Your task to perform on an android device: Go to Android settings Image 0: 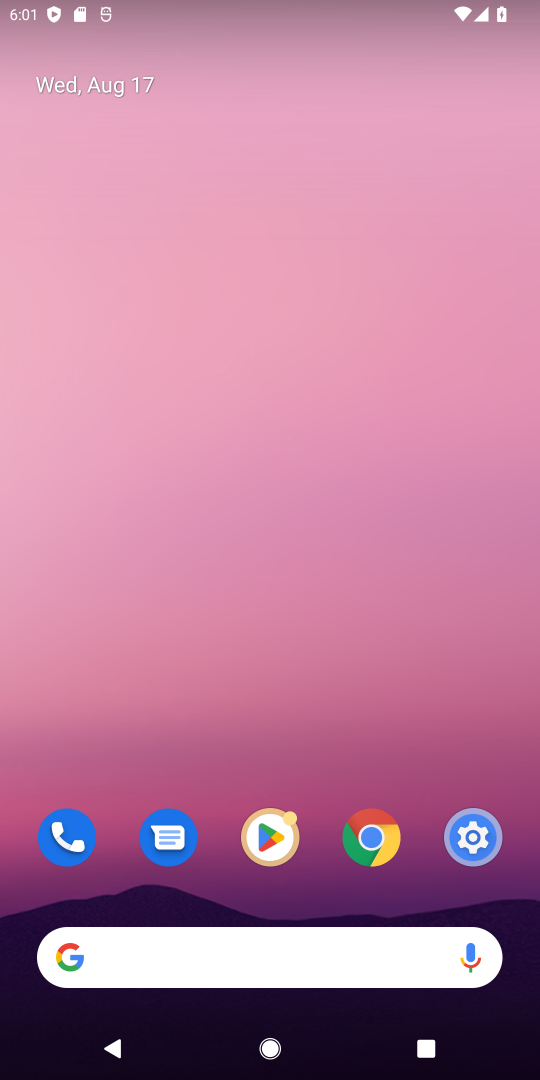
Step 0: click (465, 840)
Your task to perform on an android device: Go to Android settings Image 1: 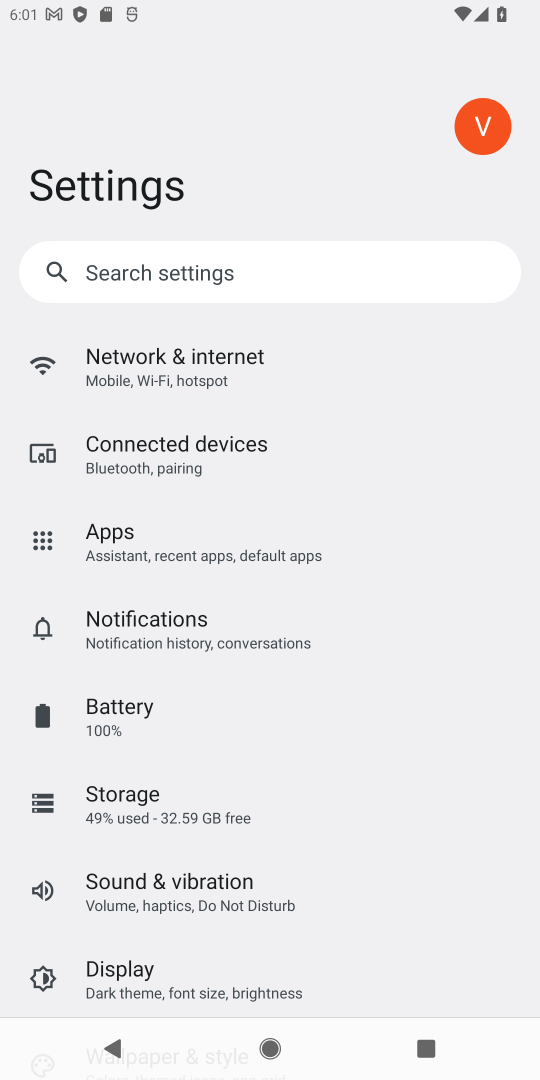
Step 1: drag from (111, 999) to (232, 58)
Your task to perform on an android device: Go to Android settings Image 2: 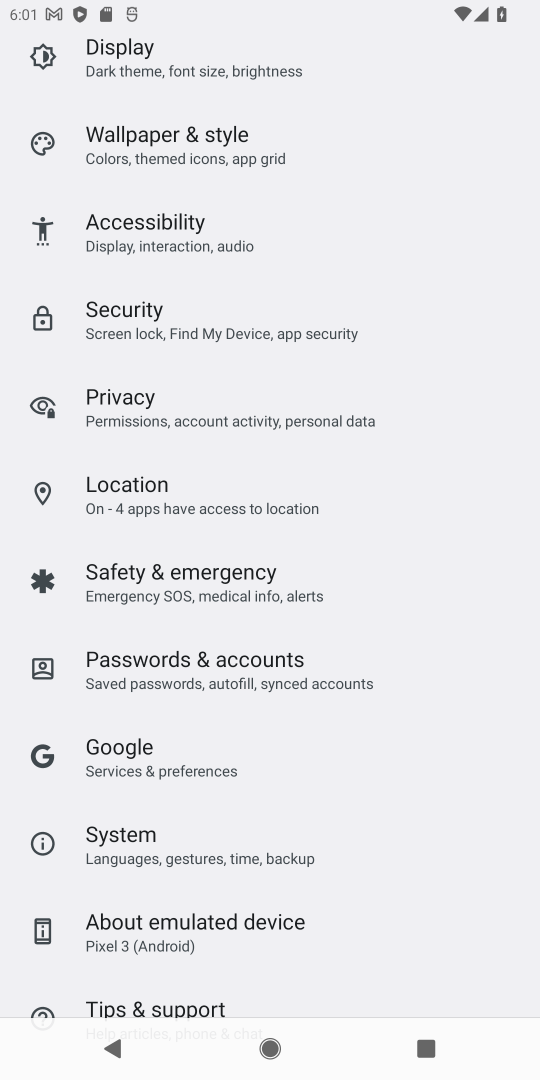
Step 2: drag from (171, 957) to (317, 55)
Your task to perform on an android device: Go to Android settings Image 3: 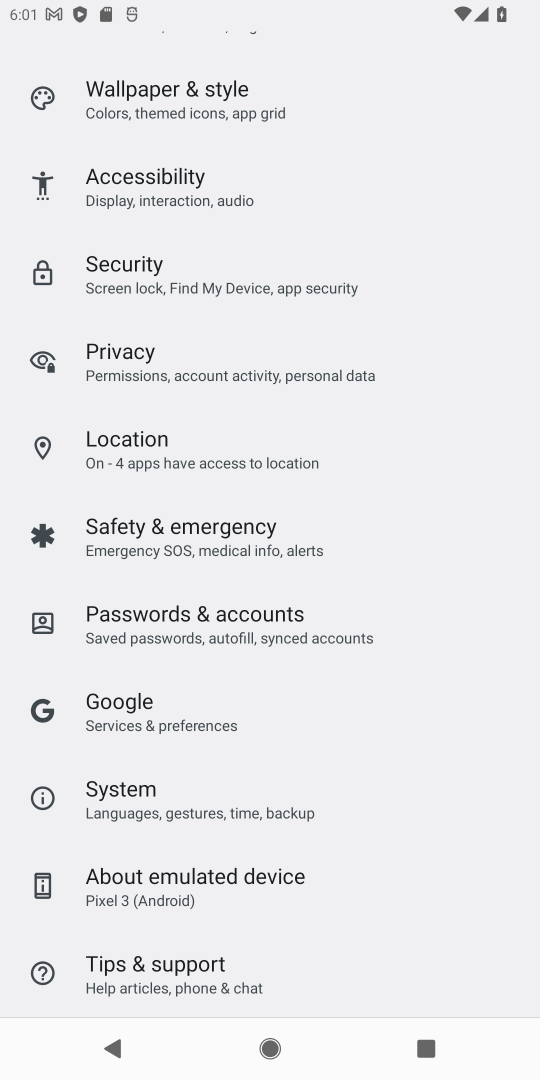
Step 3: click (189, 884)
Your task to perform on an android device: Go to Android settings Image 4: 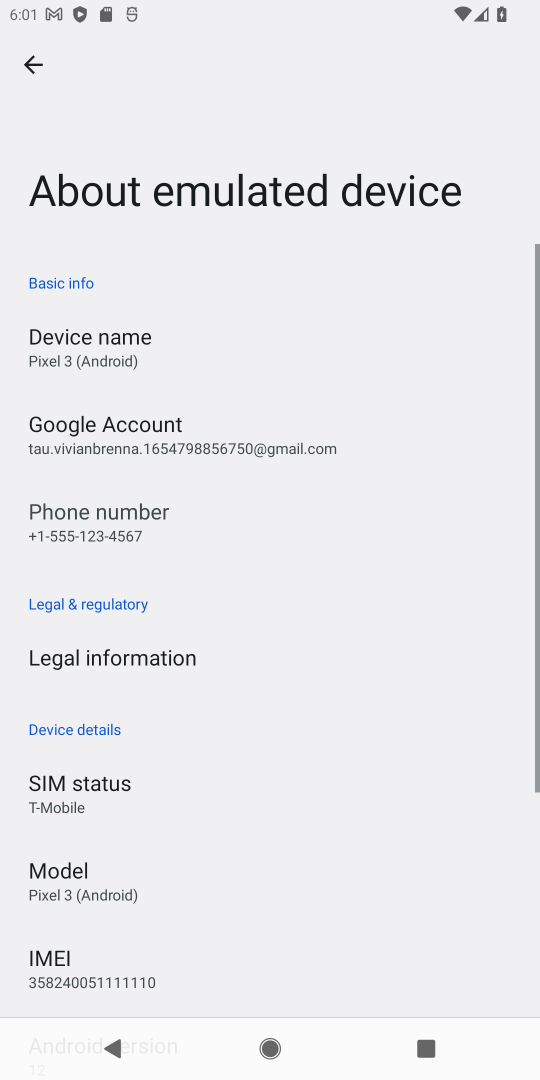
Step 4: task complete